Your task to perform on an android device: change your default location settings in chrome Image 0: 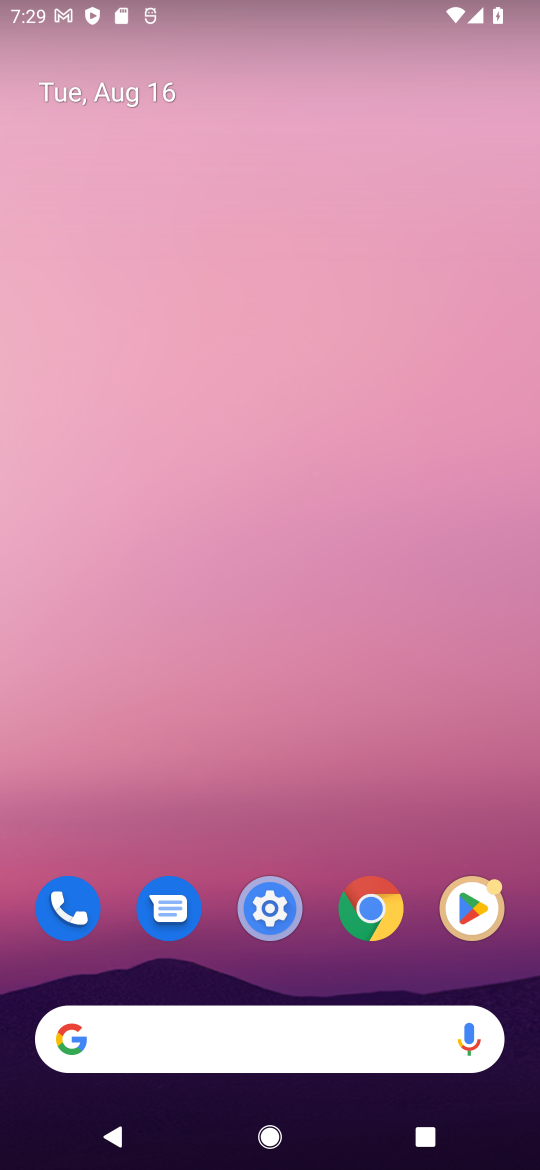
Step 0: click (380, 901)
Your task to perform on an android device: change your default location settings in chrome Image 1: 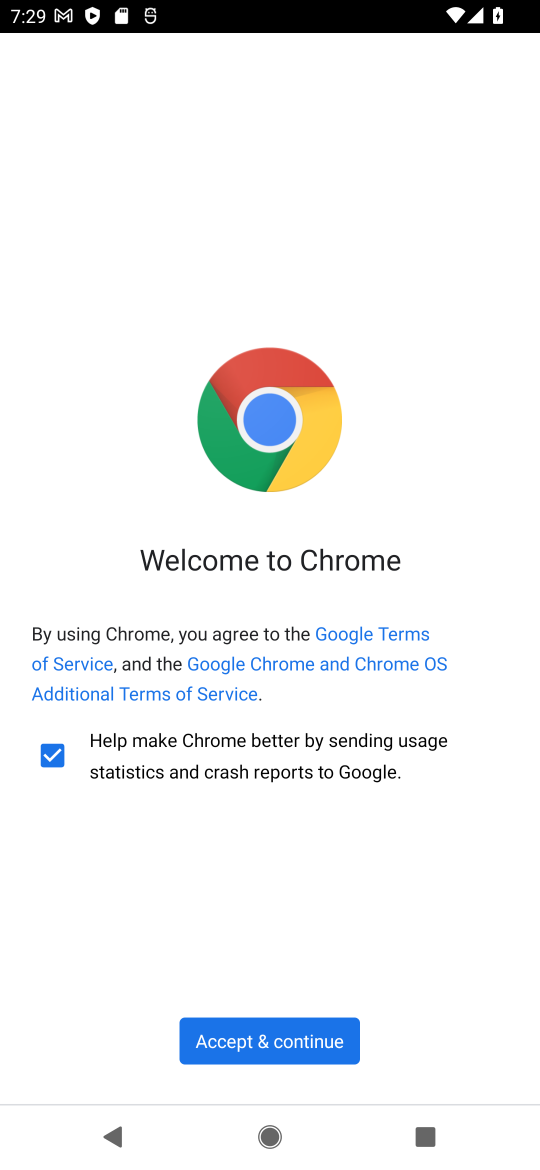
Step 1: click (291, 1057)
Your task to perform on an android device: change your default location settings in chrome Image 2: 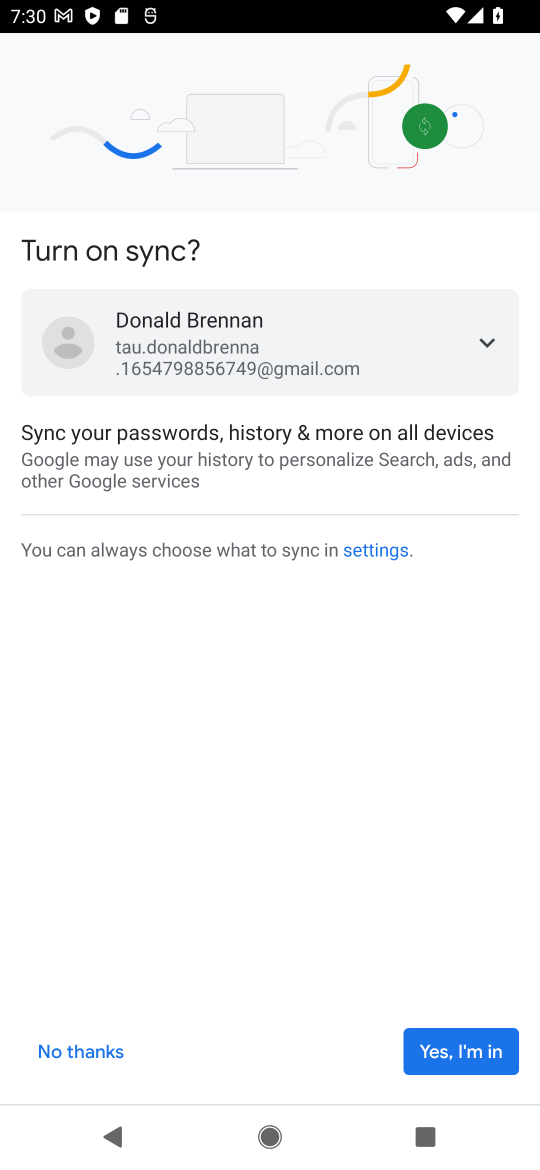
Step 2: click (498, 1053)
Your task to perform on an android device: change your default location settings in chrome Image 3: 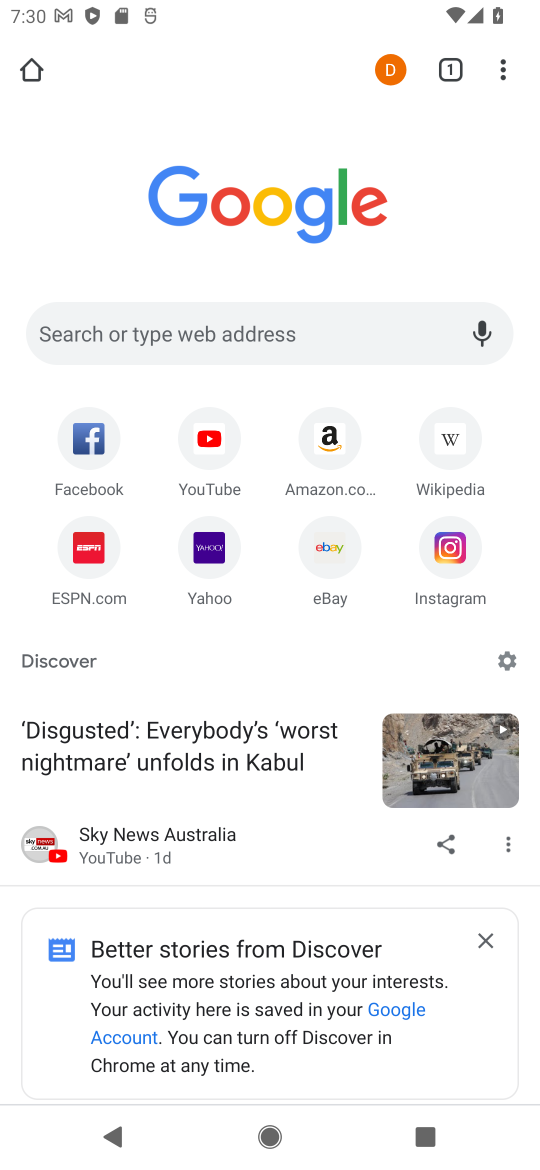
Step 3: click (503, 79)
Your task to perform on an android device: change your default location settings in chrome Image 4: 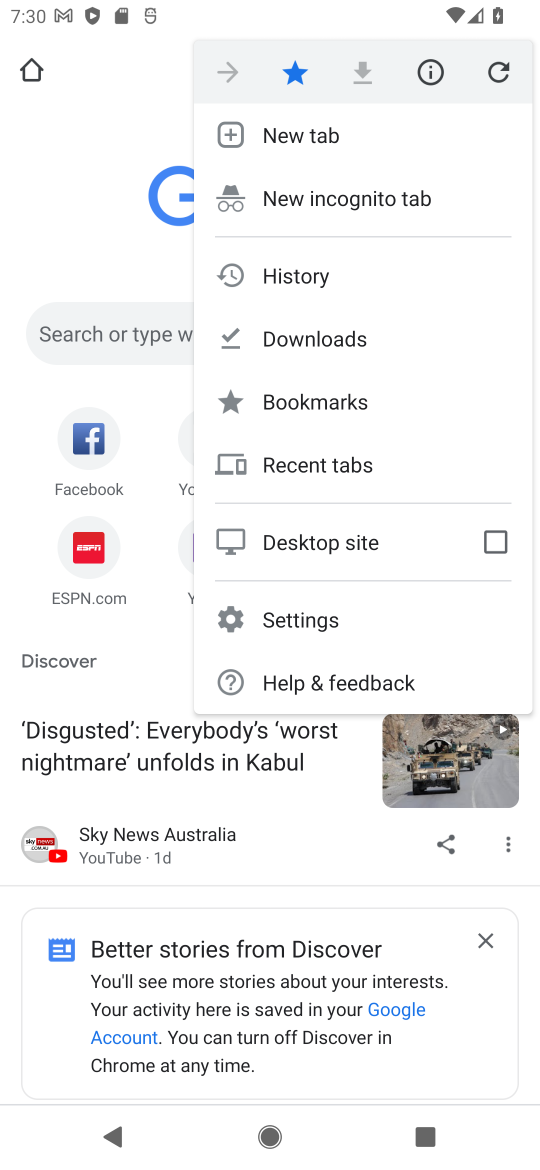
Step 4: click (309, 618)
Your task to perform on an android device: change your default location settings in chrome Image 5: 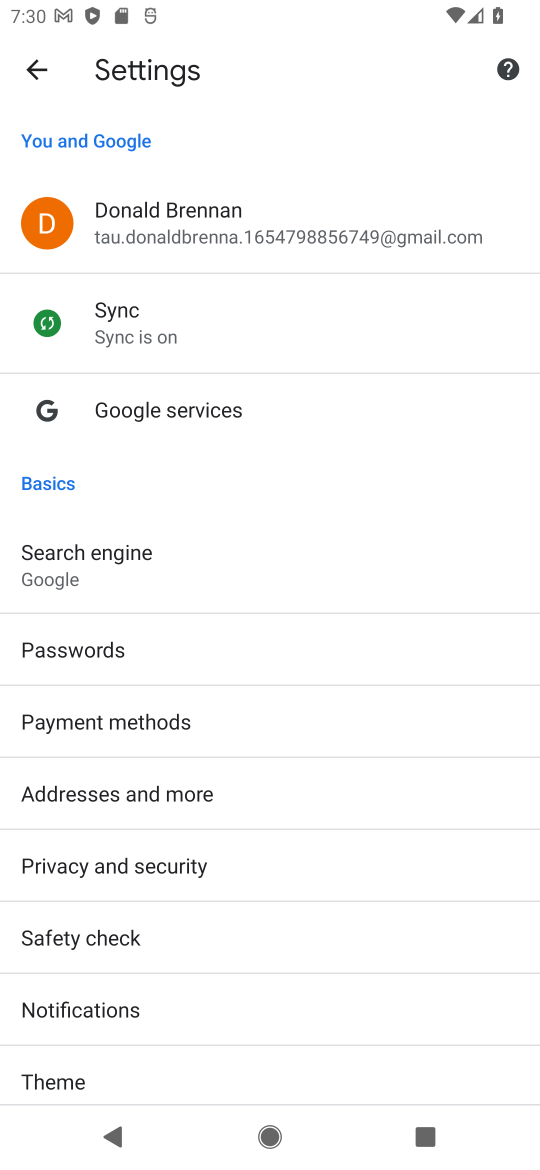
Step 5: click (82, 614)
Your task to perform on an android device: change your default location settings in chrome Image 6: 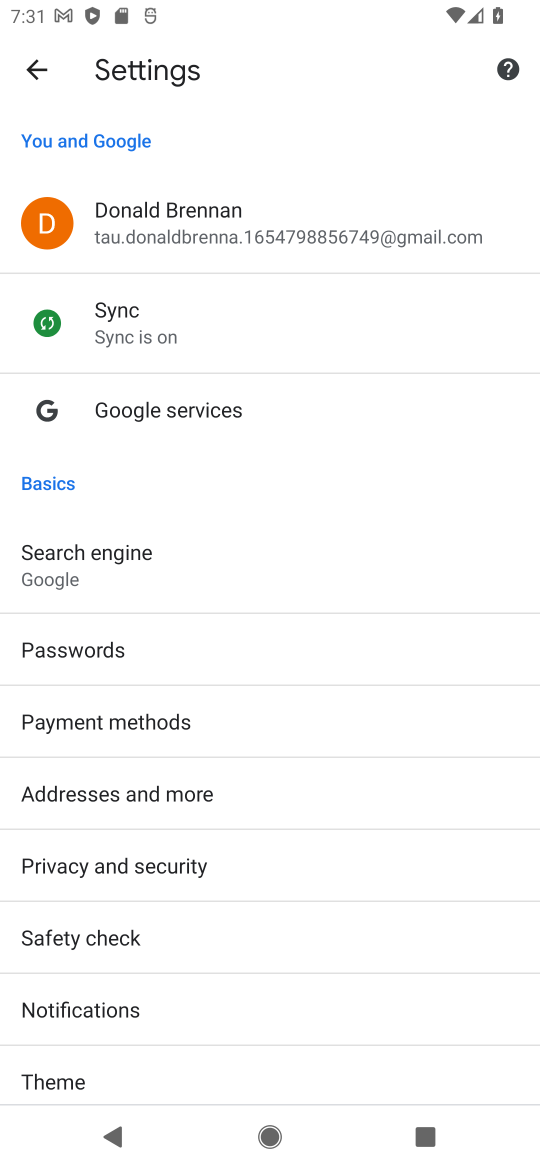
Step 6: drag from (145, 937) to (359, 428)
Your task to perform on an android device: change your default location settings in chrome Image 7: 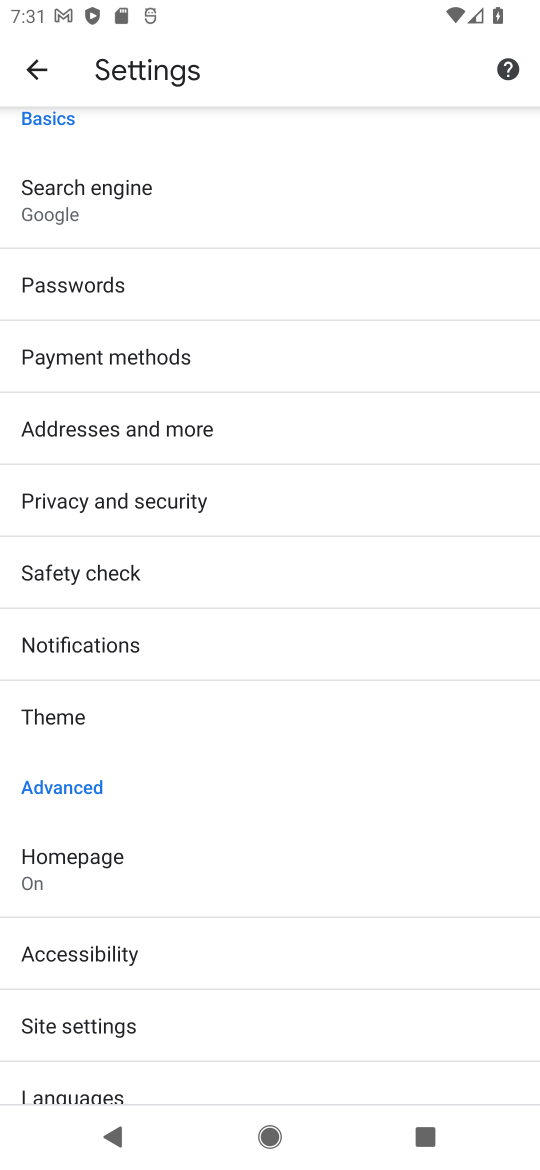
Step 7: click (74, 1026)
Your task to perform on an android device: change your default location settings in chrome Image 8: 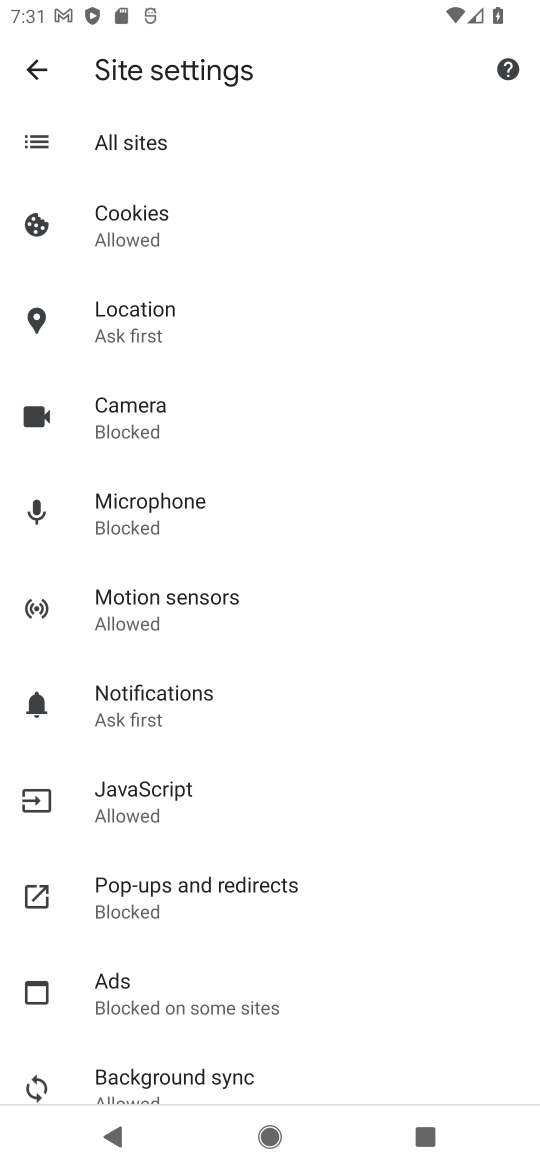
Step 8: click (123, 322)
Your task to perform on an android device: change your default location settings in chrome Image 9: 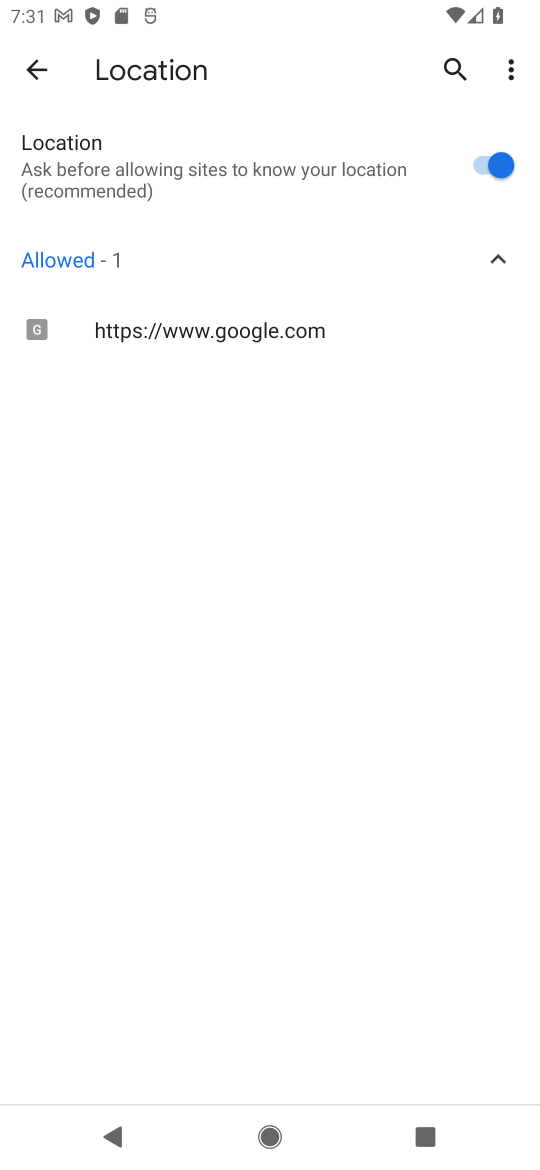
Step 9: click (492, 169)
Your task to perform on an android device: change your default location settings in chrome Image 10: 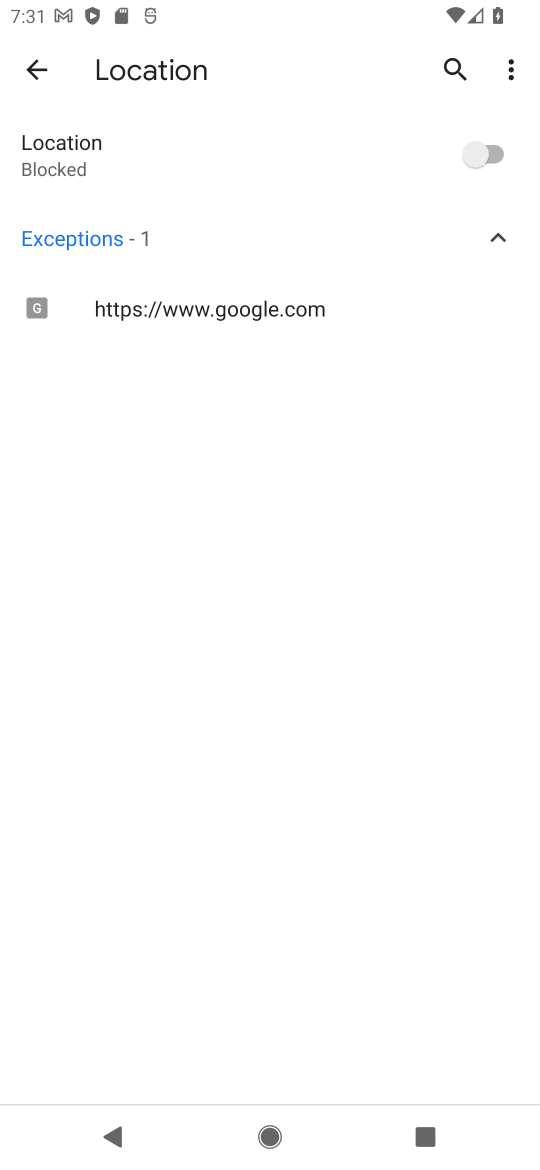
Step 10: task complete